Your task to perform on an android device: check battery use Image 0: 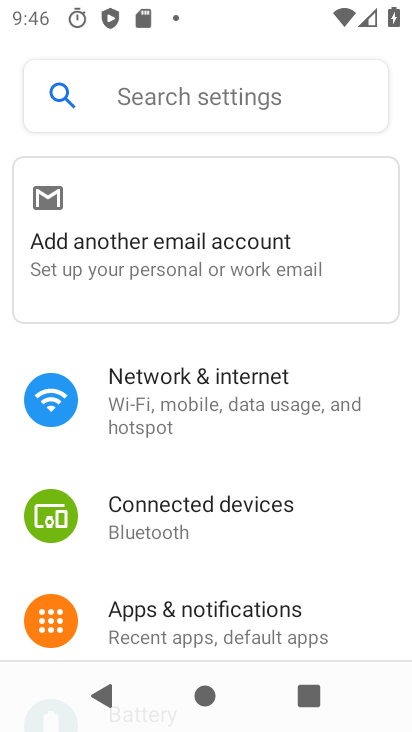
Step 0: drag from (351, 619) to (358, 303)
Your task to perform on an android device: check battery use Image 1: 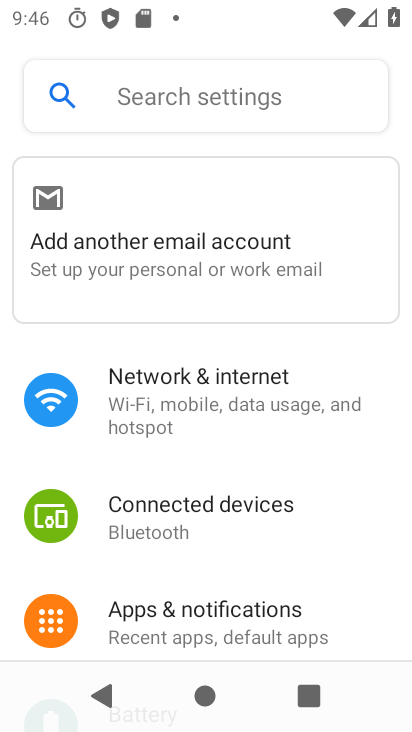
Step 1: drag from (400, 324) to (409, 223)
Your task to perform on an android device: check battery use Image 2: 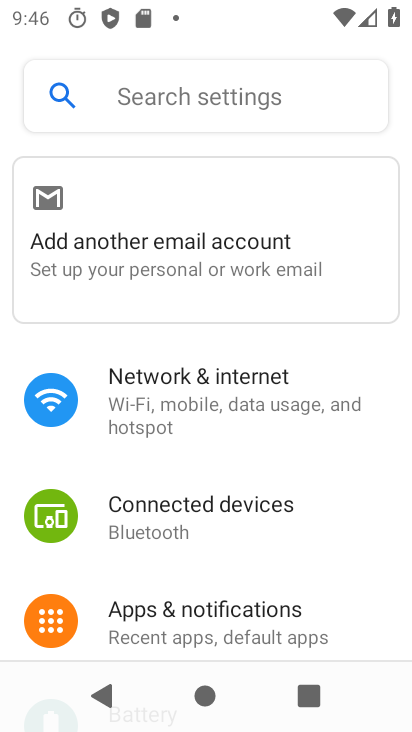
Step 2: drag from (394, 625) to (358, 342)
Your task to perform on an android device: check battery use Image 3: 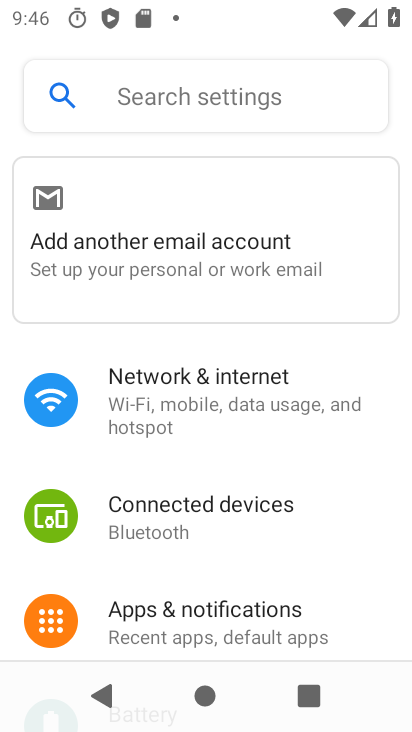
Step 3: click (363, 303)
Your task to perform on an android device: check battery use Image 4: 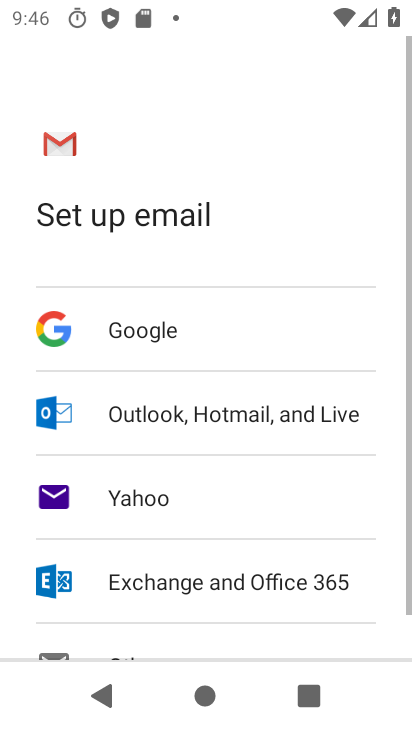
Step 4: press back button
Your task to perform on an android device: check battery use Image 5: 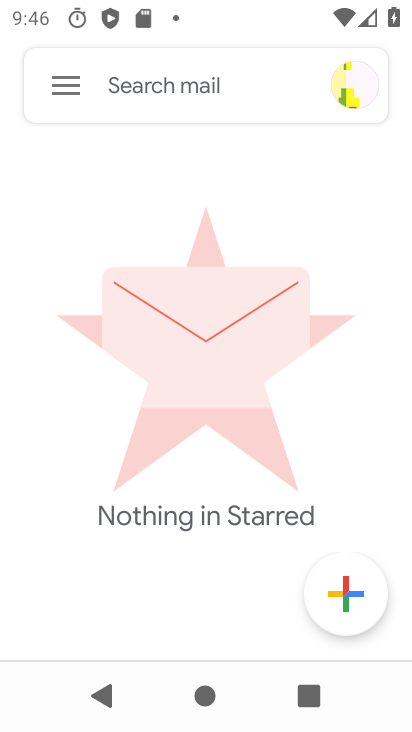
Step 5: press back button
Your task to perform on an android device: check battery use Image 6: 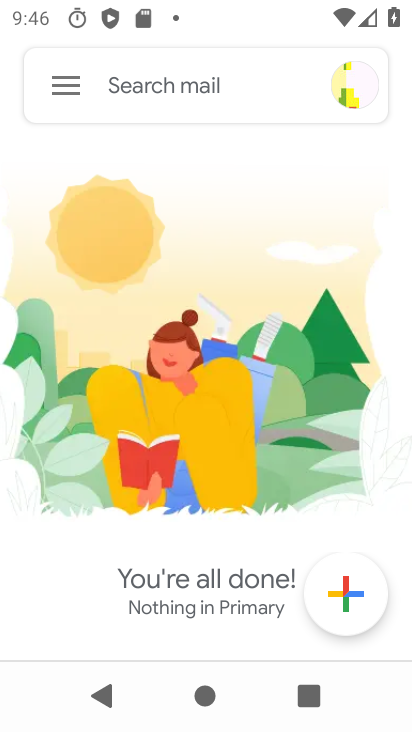
Step 6: click (68, 84)
Your task to perform on an android device: check battery use Image 7: 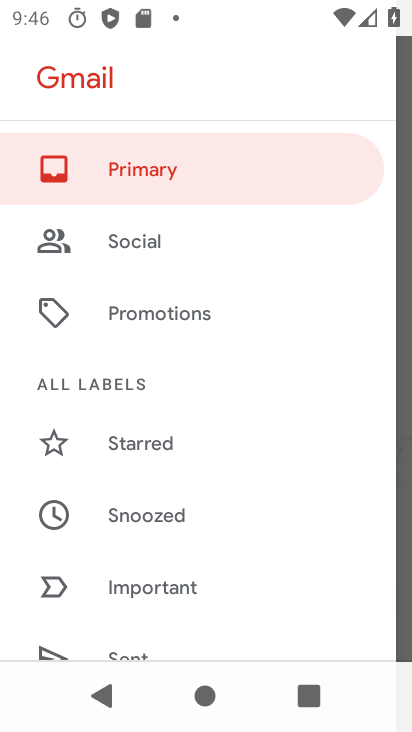
Step 7: drag from (304, 399) to (297, 256)
Your task to perform on an android device: check battery use Image 8: 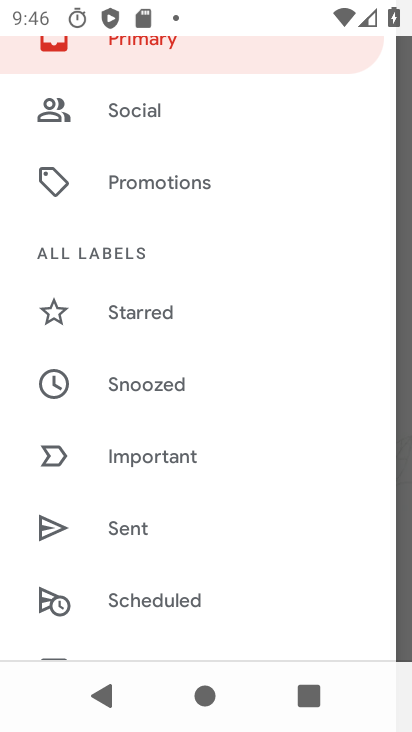
Step 8: drag from (307, 610) to (317, 263)
Your task to perform on an android device: check battery use Image 9: 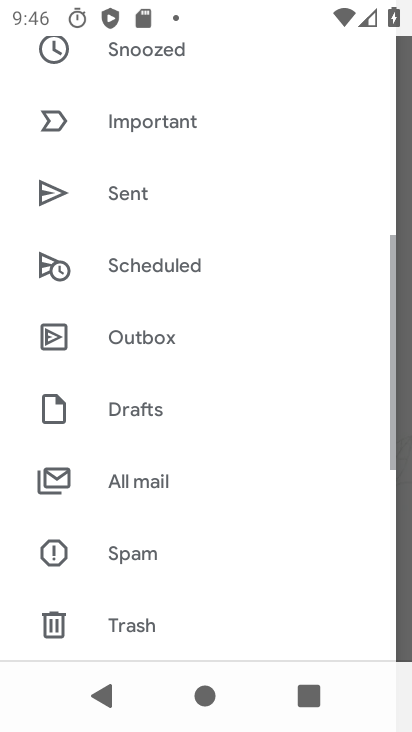
Step 9: drag from (285, 583) to (289, 328)
Your task to perform on an android device: check battery use Image 10: 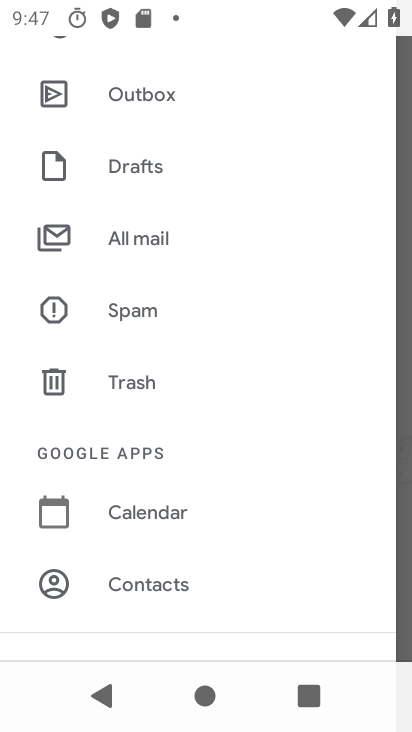
Step 10: drag from (280, 607) to (288, 323)
Your task to perform on an android device: check battery use Image 11: 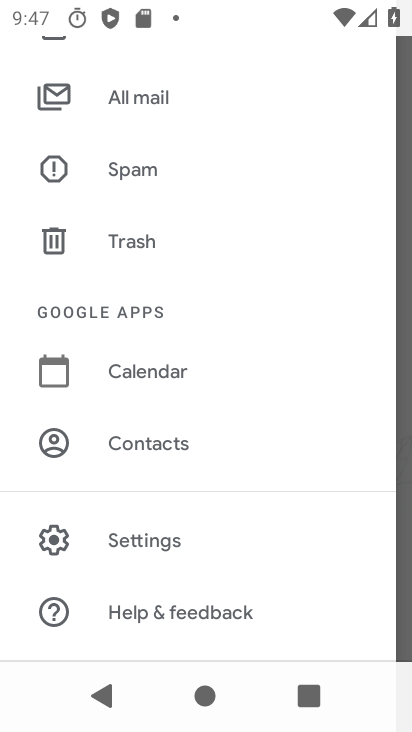
Step 11: click (131, 535)
Your task to perform on an android device: check battery use Image 12: 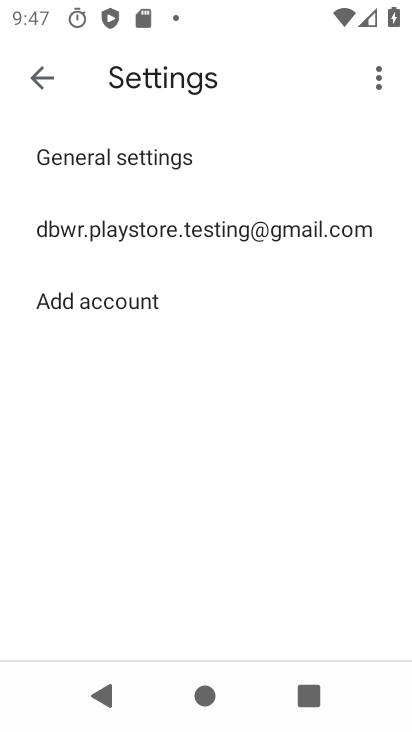
Step 12: press home button
Your task to perform on an android device: check battery use Image 13: 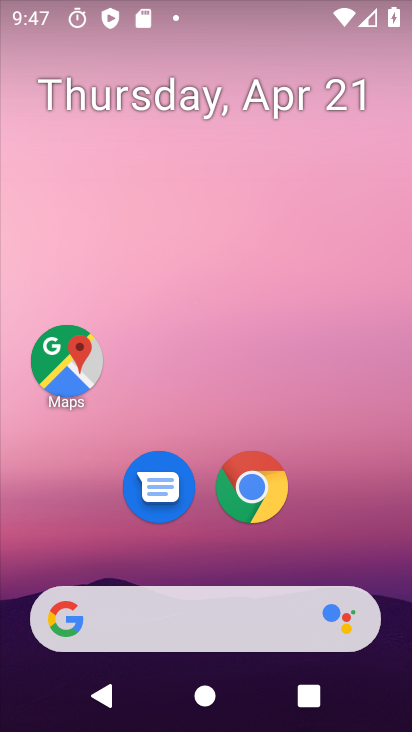
Step 13: drag from (398, 266) to (395, 153)
Your task to perform on an android device: check battery use Image 14: 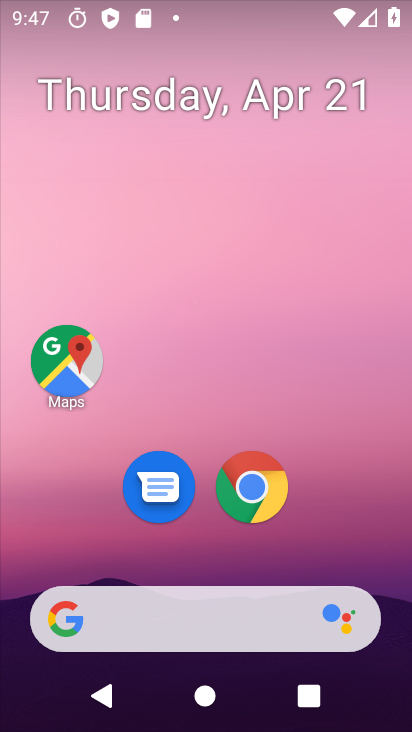
Step 14: drag from (397, 382) to (396, 263)
Your task to perform on an android device: check battery use Image 15: 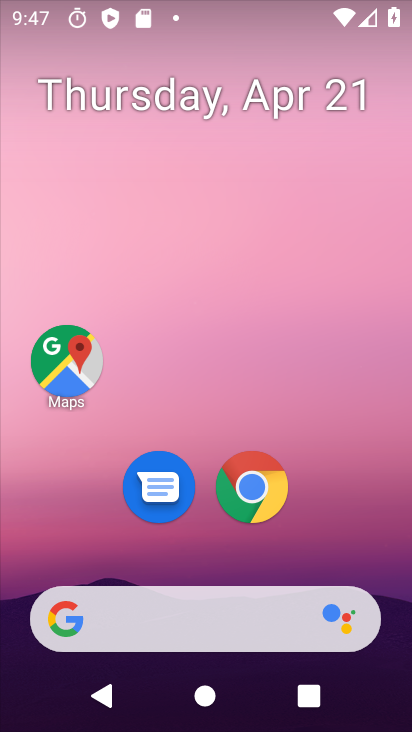
Step 15: click (366, 168)
Your task to perform on an android device: check battery use Image 16: 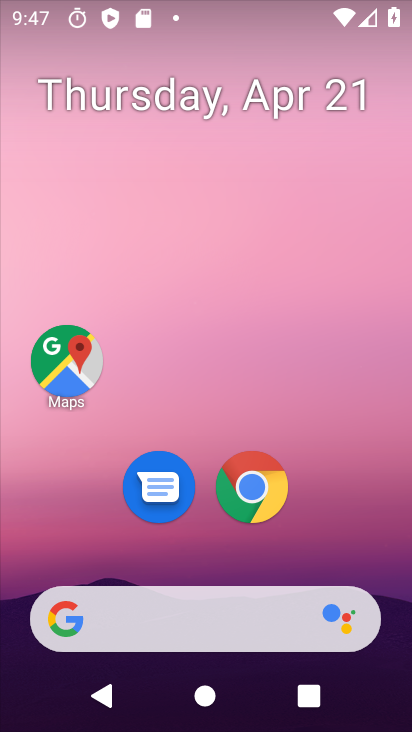
Step 16: click (386, 227)
Your task to perform on an android device: check battery use Image 17: 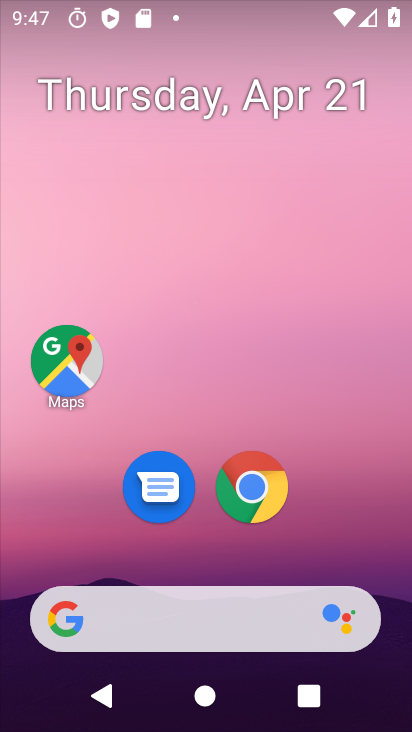
Step 17: drag from (390, 601) to (369, 109)
Your task to perform on an android device: check battery use Image 18: 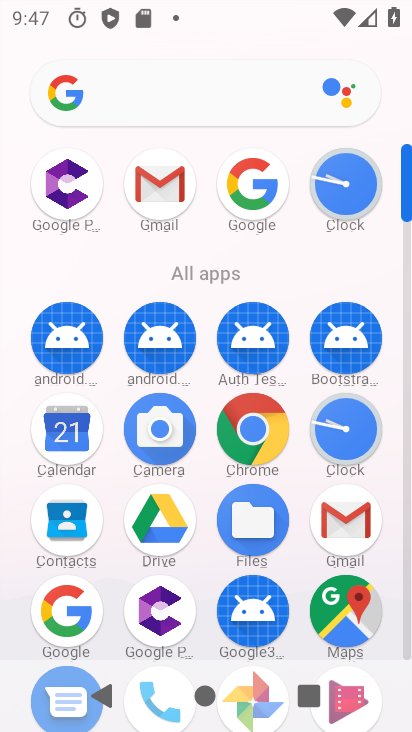
Step 18: drag from (402, 149) to (397, 75)
Your task to perform on an android device: check battery use Image 19: 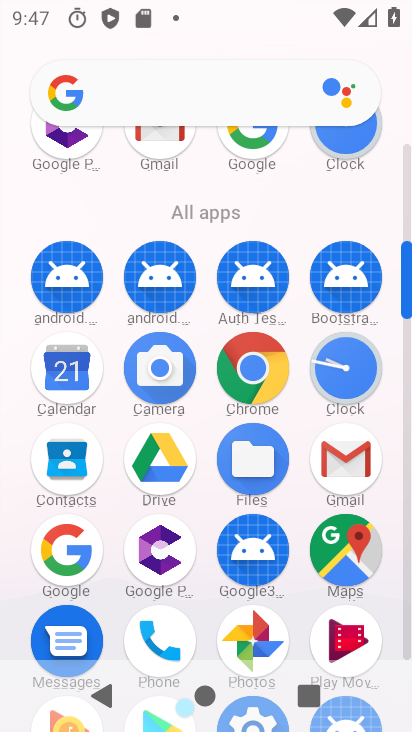
Step 19: drag from (409, 209) to (403, 252)
Your task to perform on an android device: check battery use Image 20: 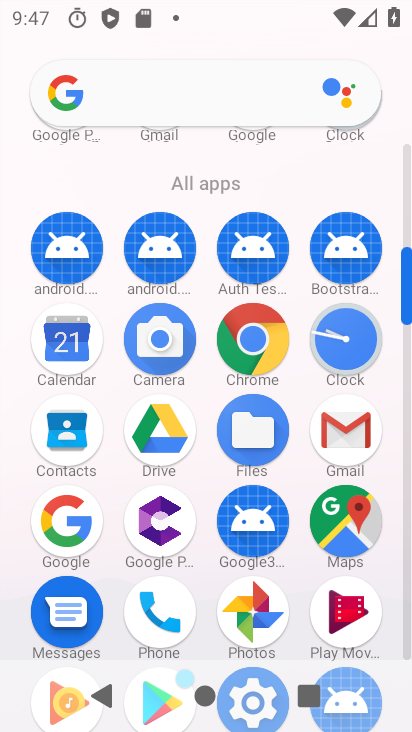
Step 20: drag from (406, 247) to (401, 177)
Your task to perform on an android device: check battery use Image 21: 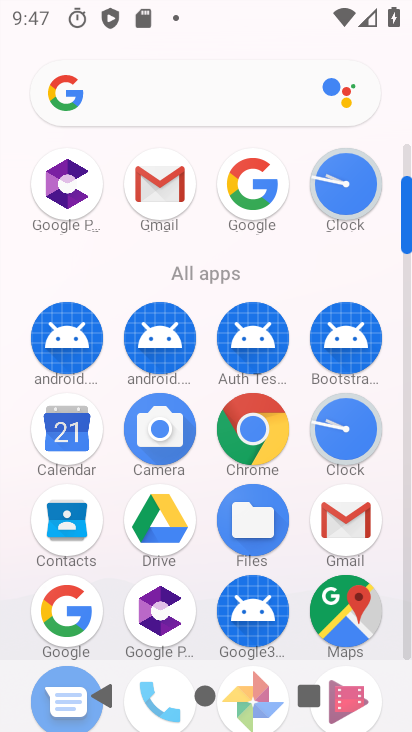
Step 21: click (403, 121)
Your task to perform on an android device: check battery use Image 22: 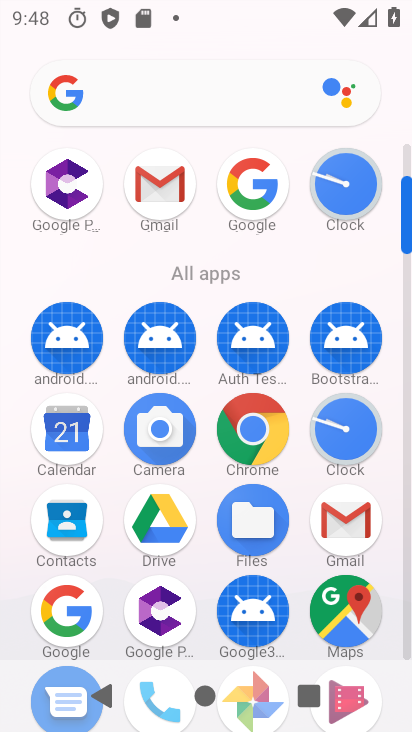
Step 22: drag from (404, 194) to (405, 80)
Your task to perform on an android device: check battery use Image 23: 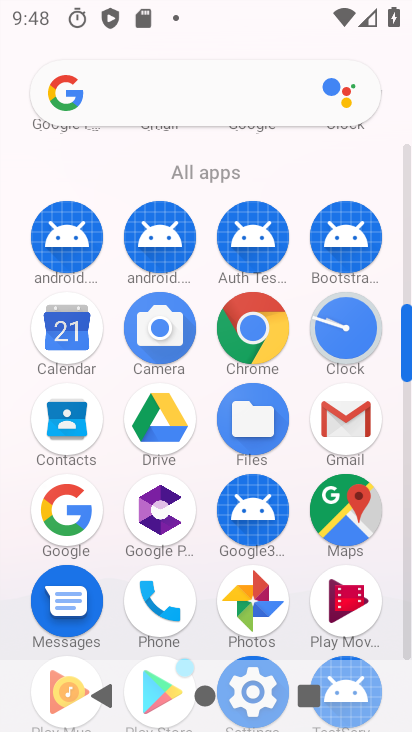
Step 23: click (248, 658)
Your task to perform on an android device: check battery use Image 24: 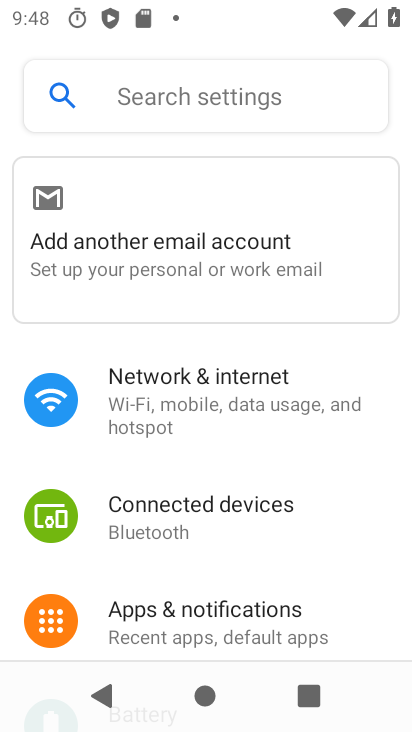
Step 24: drag from (354, 611) to (359, 338)
Your task to perform on an android device: check battery use Image 25: 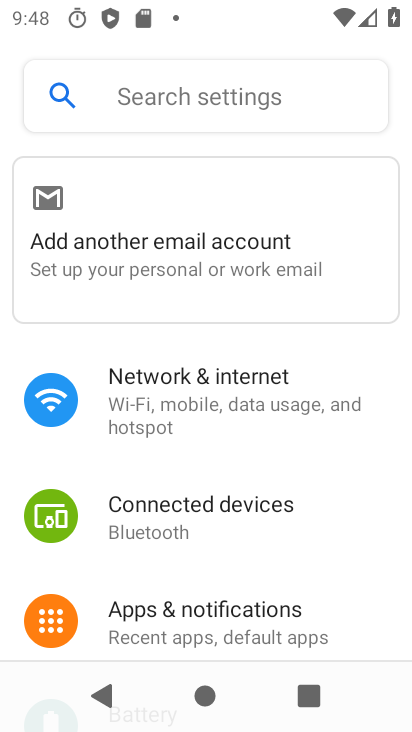
Step 25: drag from (372, 430) to (375, 360)
Your task to perform on an android device: check battery use Image 26: 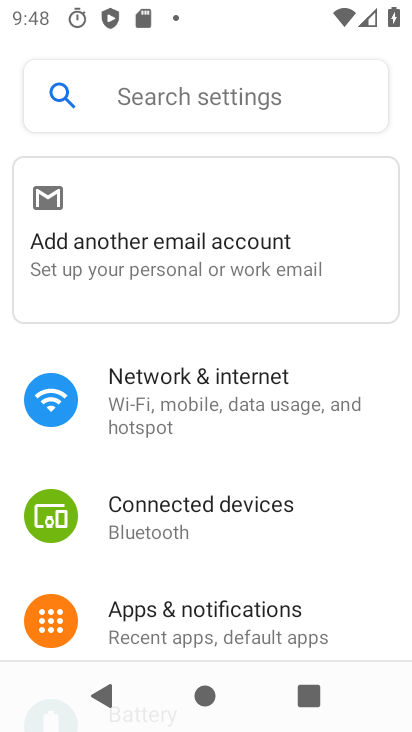
Step 26: drag from (374, 506) to (380, 363)
Your task to perform on an android device: check battery use Image 27: 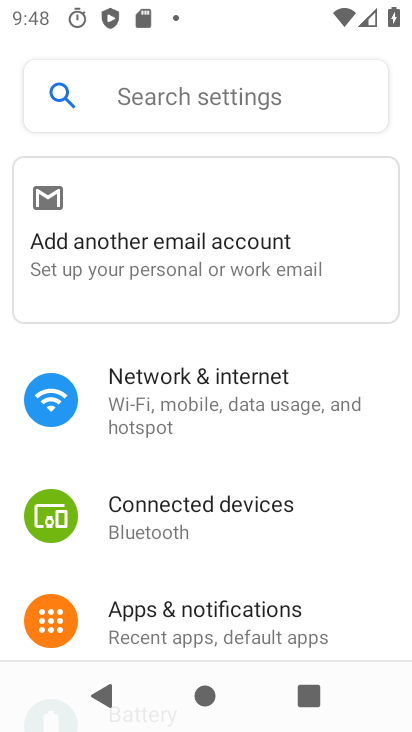
Step 27: drag from (382, 624) to (405, 228)
Your task to perform on an android device: check battery use Image 28: 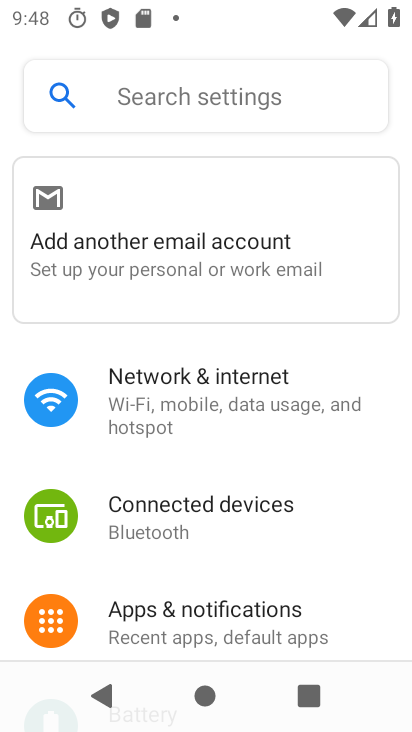
Step 28: drag from (379, 625) to (367, 265)
Your task to perform on an android device: check battery use Image 29: 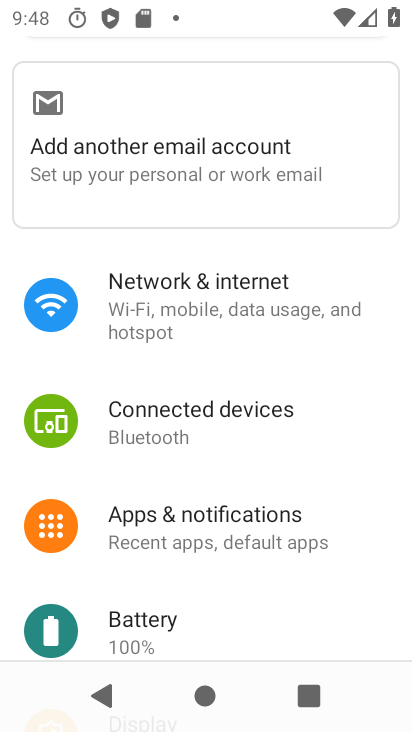
Step 29: click (130, 623)
Your task to perform on an android device: check battery use Image 30: 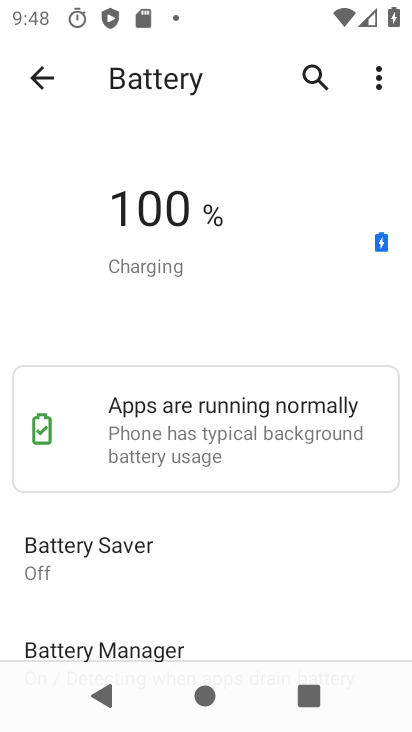
Step 30: click (374, 82)
Your task to perform on an android device: check battery use Image 31: 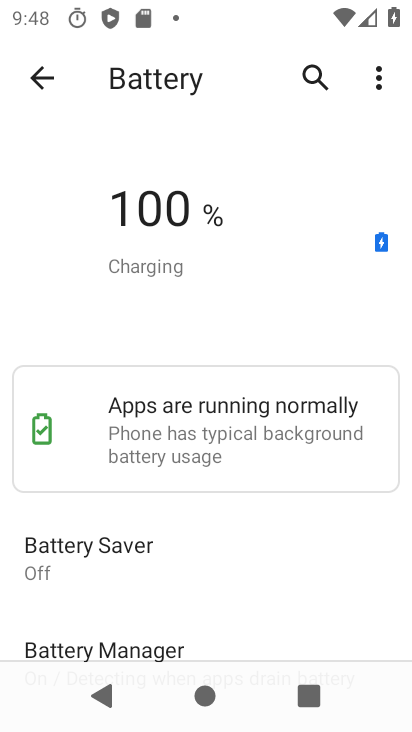
Step 31: click (380, 65)
Your task to perform on an android device: check battery use Image 32: 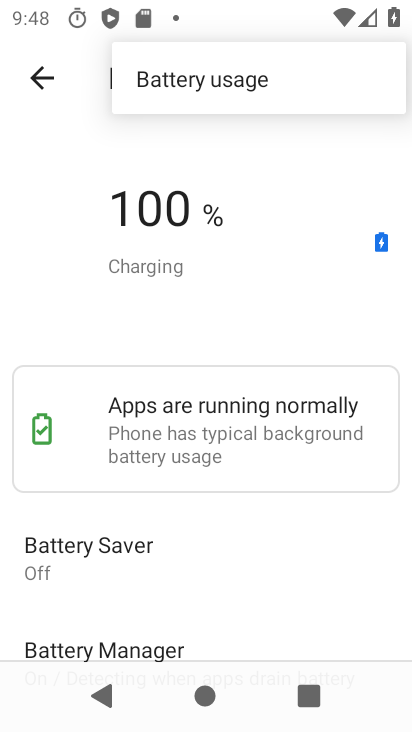
Step 32: click (278, 83)
Your task to perform on an android device: check battery use Image 33: 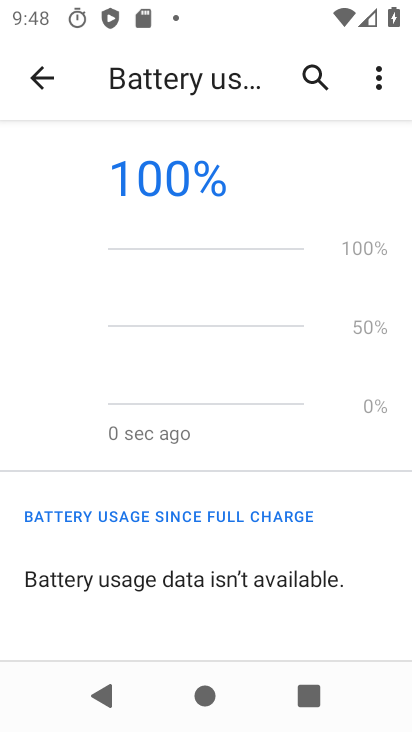
Step 33: task complete